Your task to perform on an android device: Go to Maps Image 0: 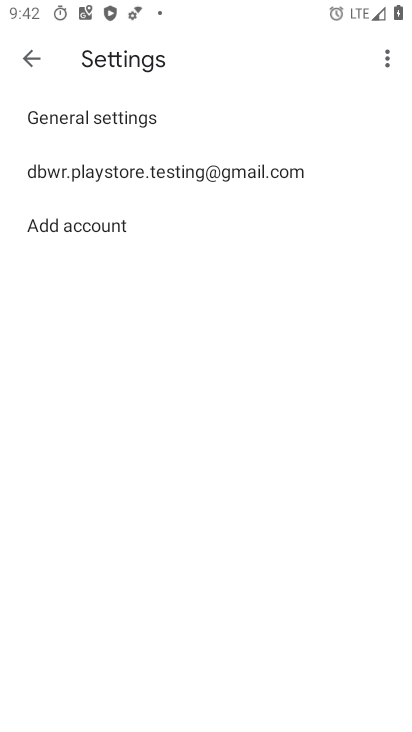
Step 0: press home button
Your task to perform on an android device: Go to Maps Image 1: 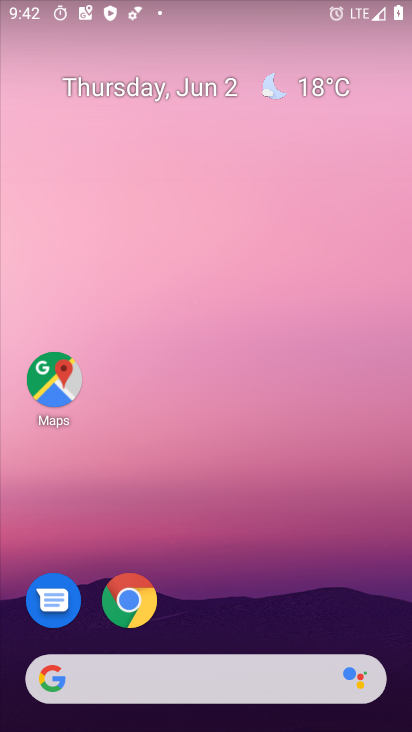
Step 1: drag from (372, 617) to (340, 243)
Your task to perform on an android device: Go to Maps Image 2: 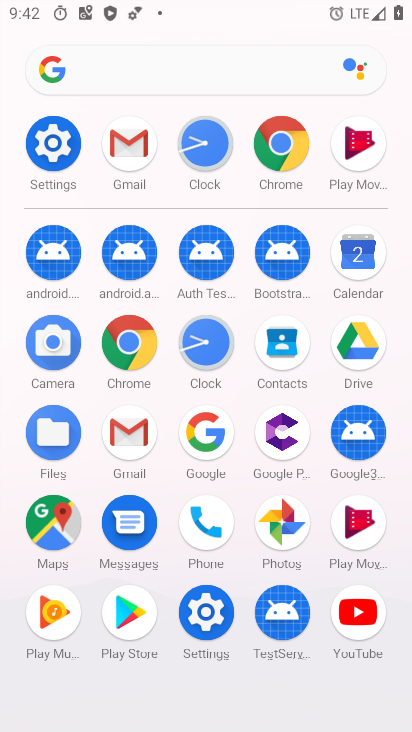
Step 2: click (59, 514)
Your task to perform on an android device: Go to Maps Image 3: 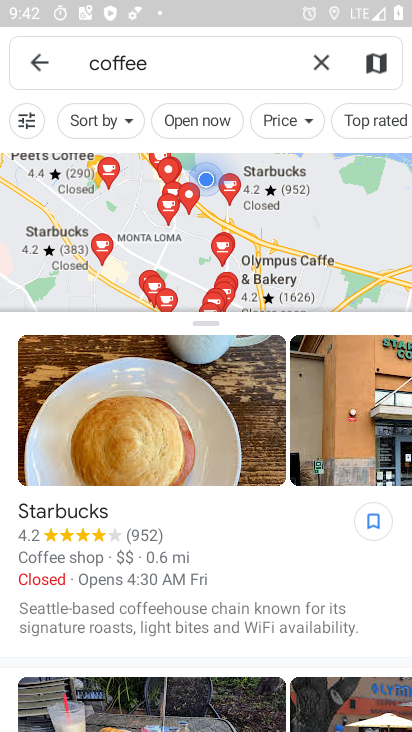
Step 3: task complete